Your task to perform on an android device: toggle javascript in the chrome app Image 0: 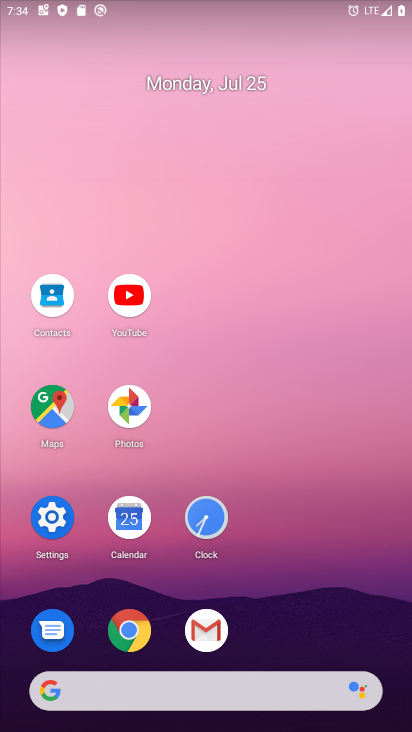
Step 0: click (133, 633)
Your task to perform on an android device: toggle javascript in the chrome app Image 1: 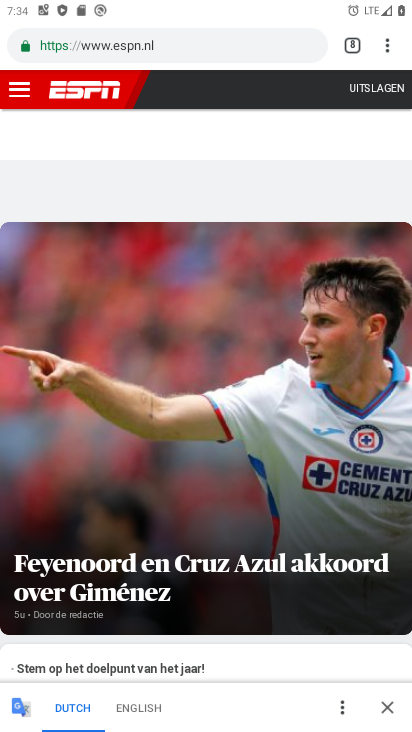
Step 1: click (387, 39)
Your task to perform on an android device: toggle javascript in the chrome app Image 2: 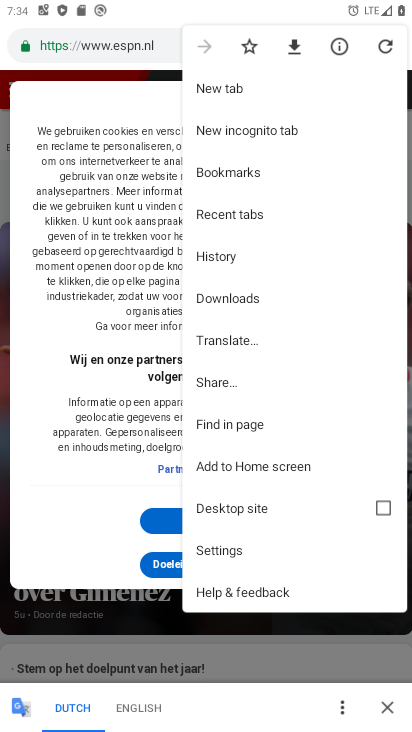
Step 2: click (228, 549)
Your task to perform on an android device: toggle javascript in the chrome app Image 3: 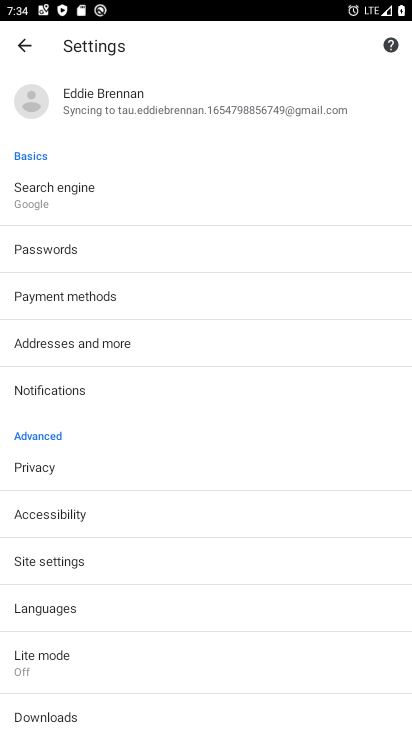
Step 3: click (68, 556)
Your task to perform on an android device: toggle javascript in the chrome app Image 4: 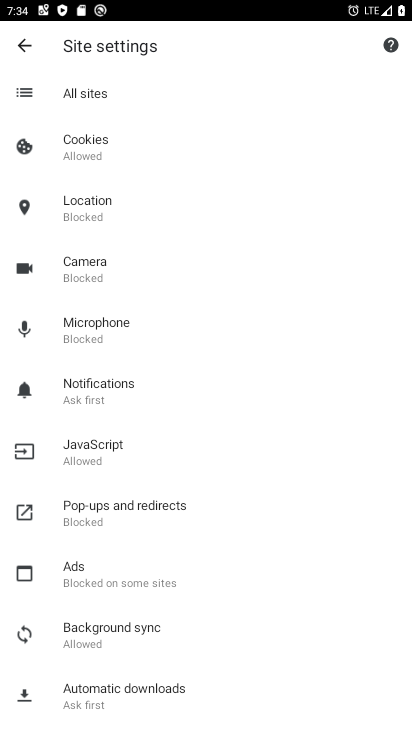
Step 4: click (111, 447)
Your task to perform on an android device: toggle javascript in the chrome app Image 5: 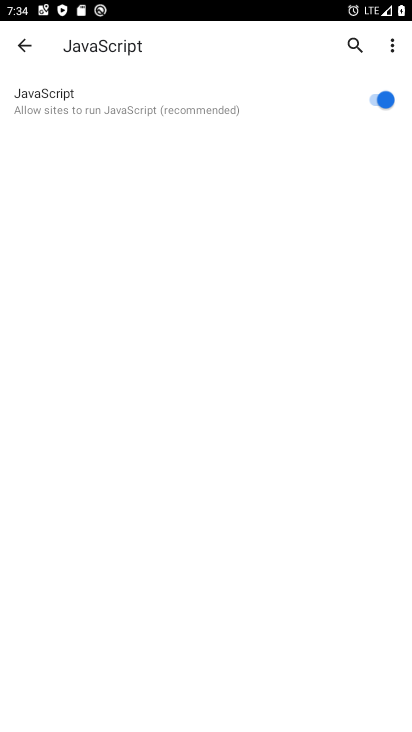
Step 5: click (376, 95)
Your task to perform on an android device: toggle javascript in the chrome app Image 6: 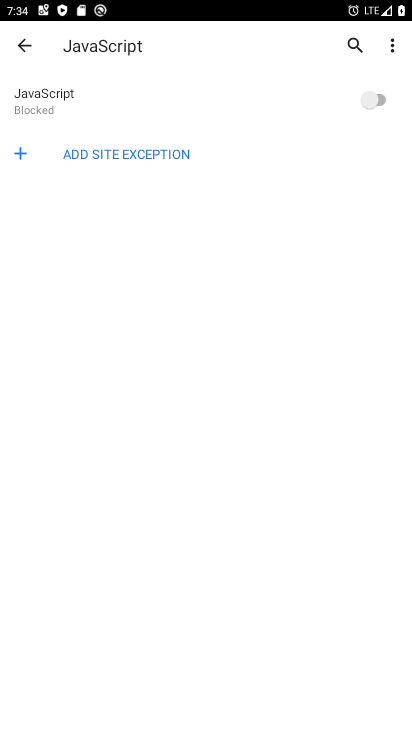
Step 6: task complete